Your task to perform on an android device: change text size in settings app Image 0: 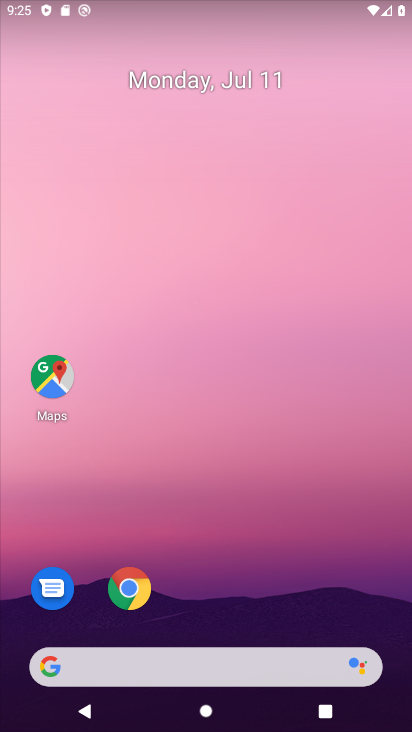
Step 0: drag from (262, 601) to (231, 67)
Your task to perform on an android device: change text size in settings app Image 1: 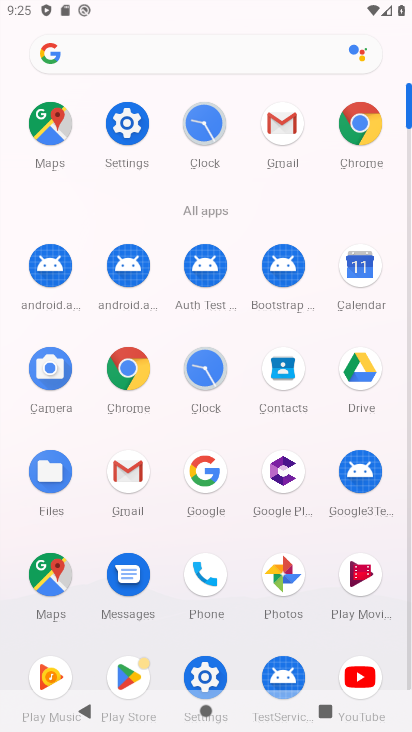
Step 1: click (122, 124)
Your task to perform on an android device: change text size in settings app Image 2: 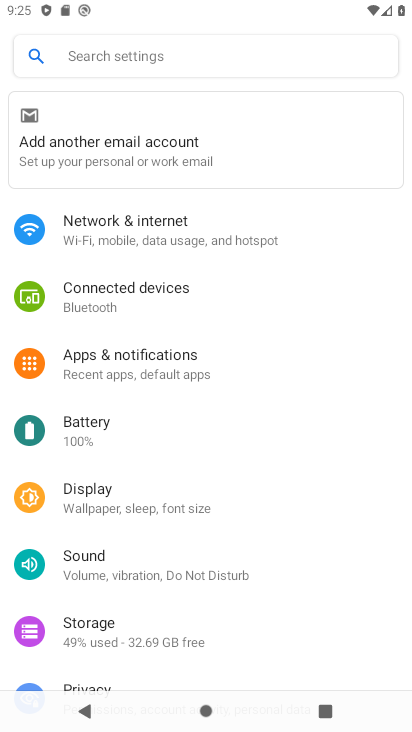
Step 2: click (162, 493)
Your task to perform on an android device: change text size in settings app Image 3: 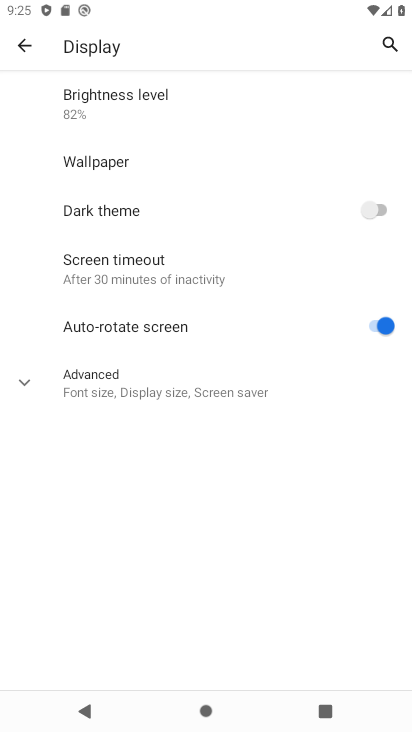
Step 3: click (188, 400)
Your task to perform on an android device: change text size in settings app Image 4: 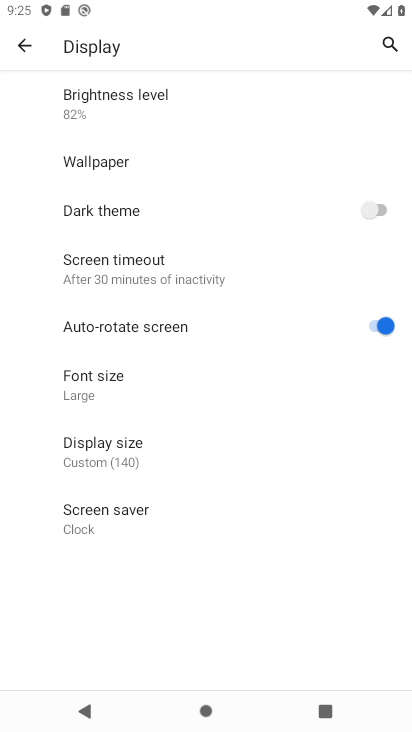
Step 4: click (120, 388)
Your task to perform on an android device: change text size in settings app Image 5: 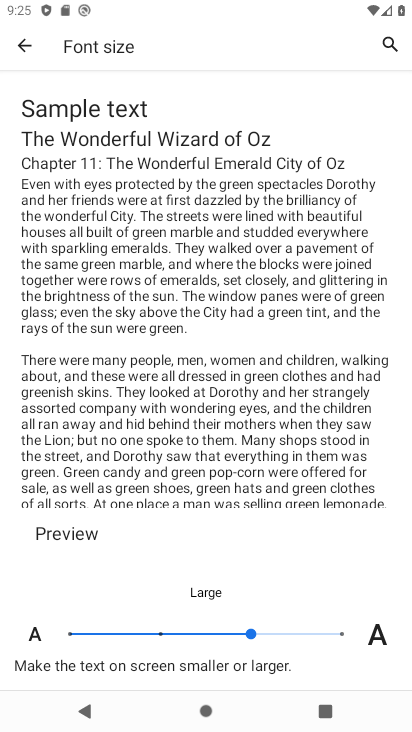
Step 5: click (345, 636)
Your task to perform on an android device: change text size in settings app Image 6: 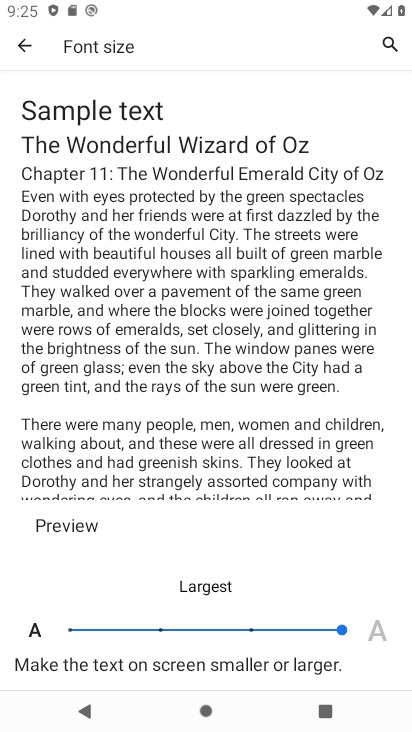
Step 6: task complete